Your task to perform on an android device: install app "Adobe Acrobat Reader: Edit PDF" Image 0: 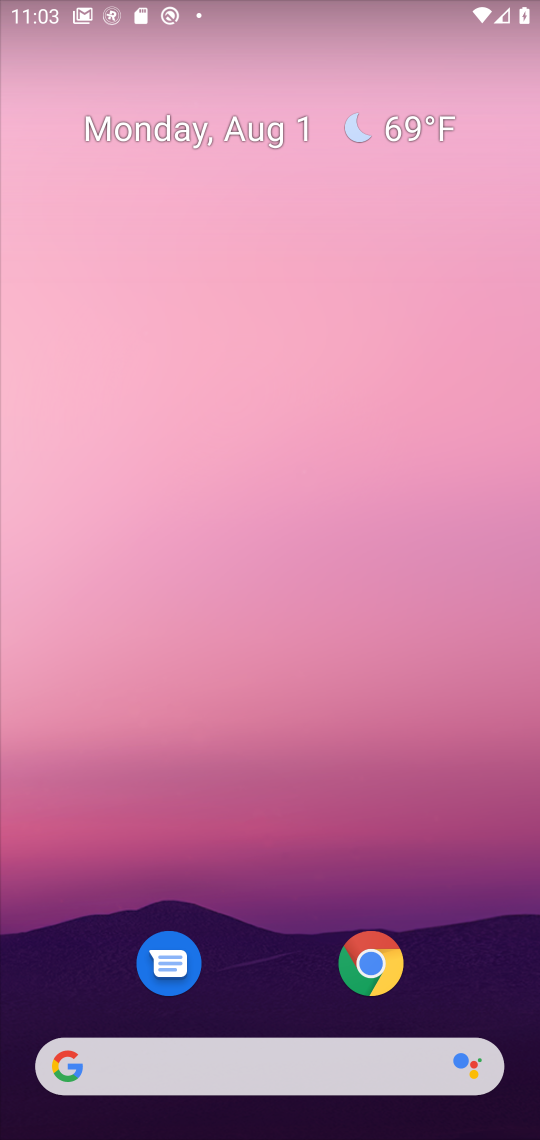
Step 0: drag from (274, 984) to (283, 374)
Your task to perform on an android device: install app "Adobe Acrobat Reader: Edit PDF" Image 1: 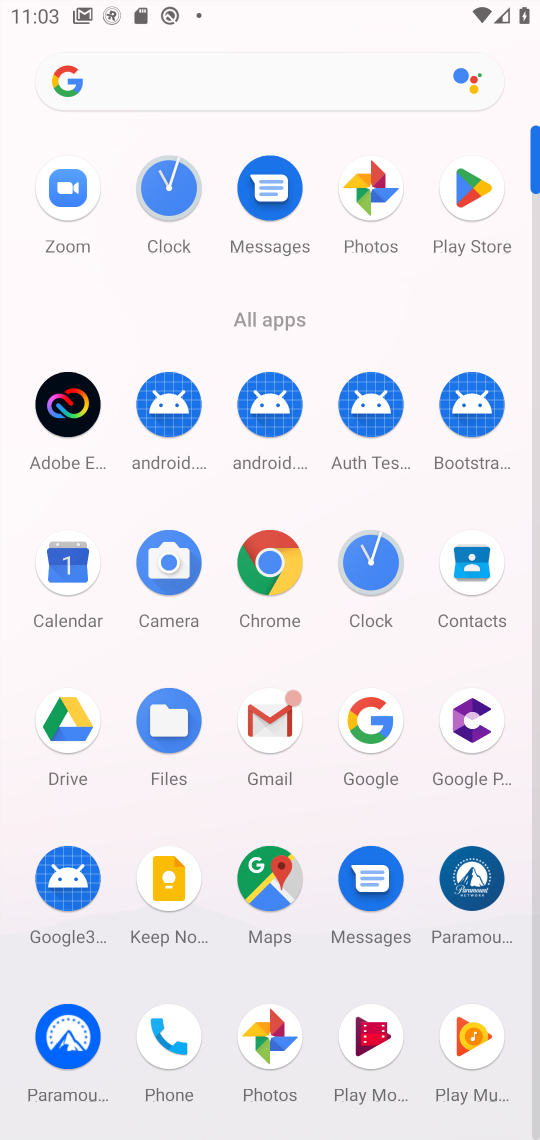
Step 1: click (485, 217)
Your task to perform on an android device: install app "Adobe Acrobat Reader: Edit PDF" Image 2: 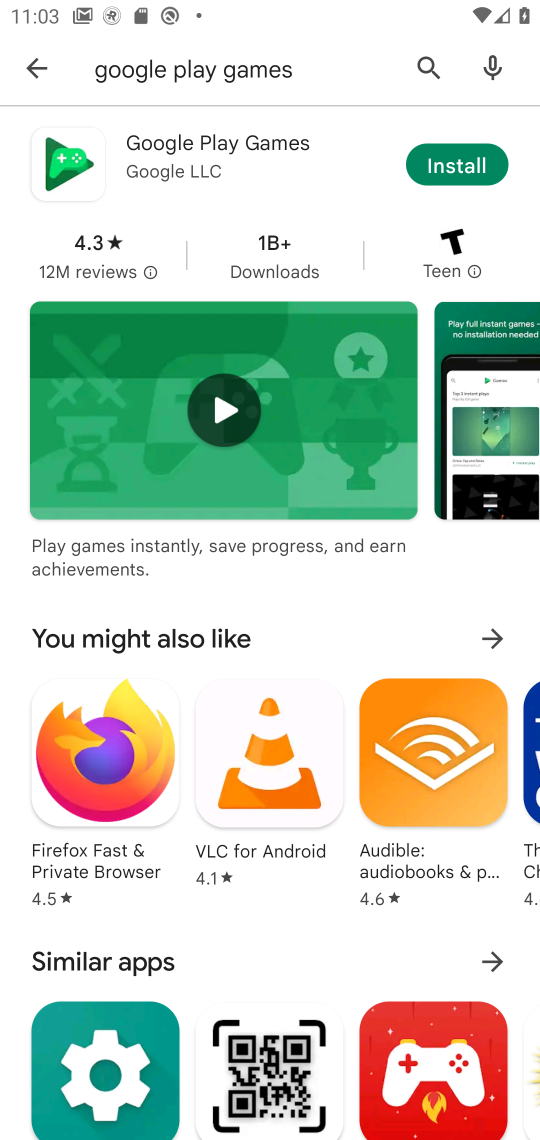
Step 2: click (233, 45)
Your task to perform on an android device: install app "Adobe Acrobat Reader: Edit PDF" Image 3: 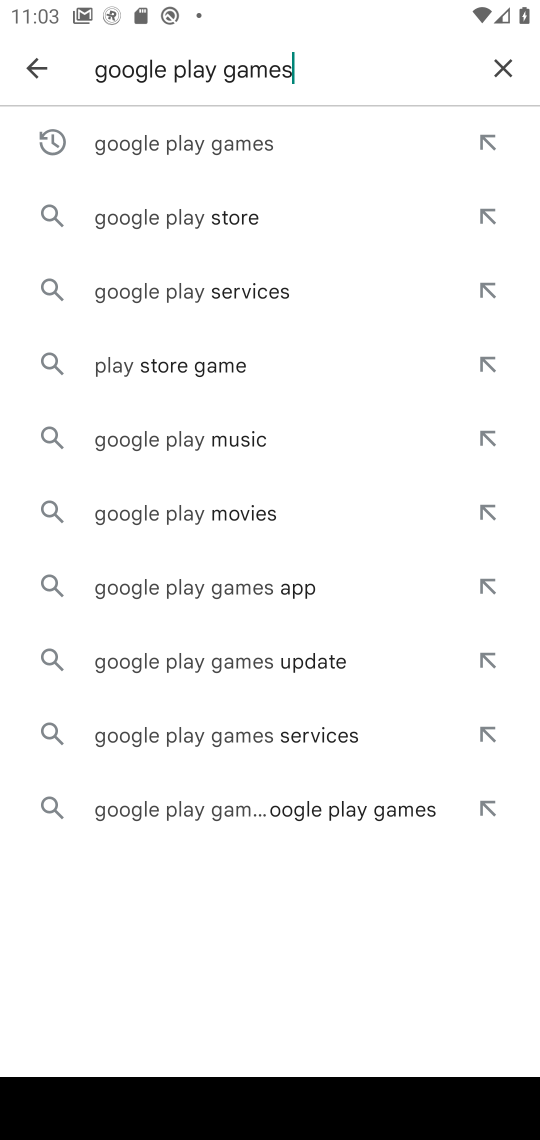
Step 3: click (505, 66)
Your task to perform on an android device: install app "Adobe Acrobat Reader: Edit PDF" Image 4: 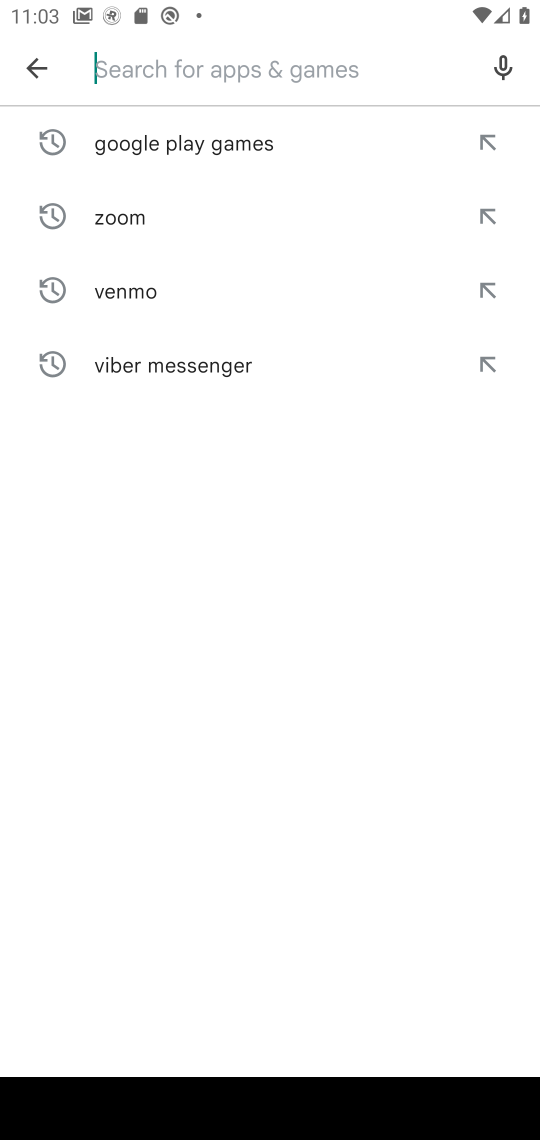
Step 4: type "Adobe Acrobat Reader"
Your task to perform on an android device: install app "Adobe Acrobat Reader: Edit PDF" Image 5: 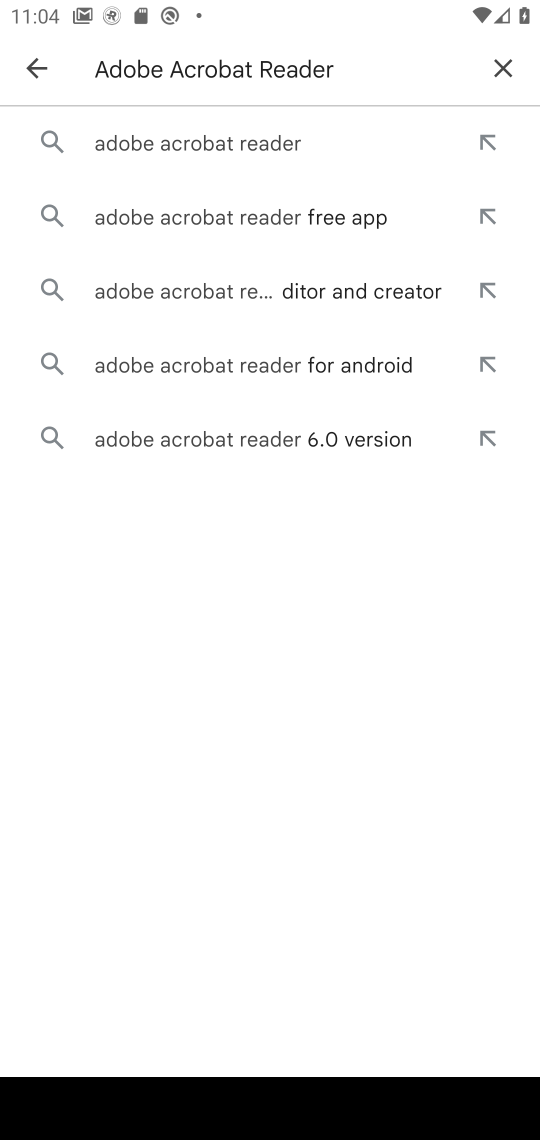
Step 5: click (158, 136)
Your task to perform on an android device: install app "Adobe Acrobat Reader: Edit PDF" Image 6: 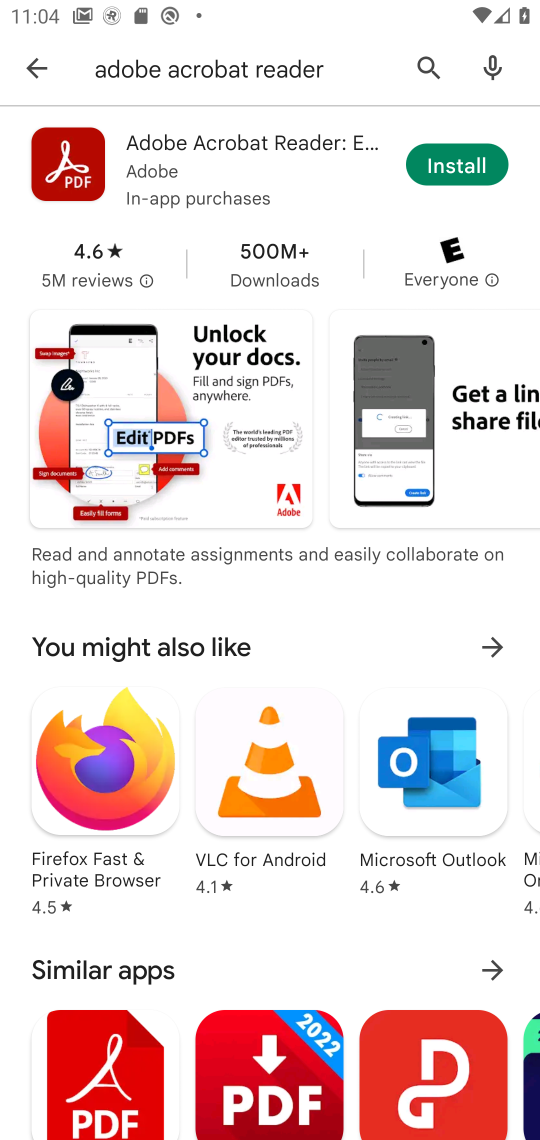
Step 6: click (453, 162)
Your task to perform on an android device: install app "Adobe Acrobat Reader: Edit PDF" Image 7: 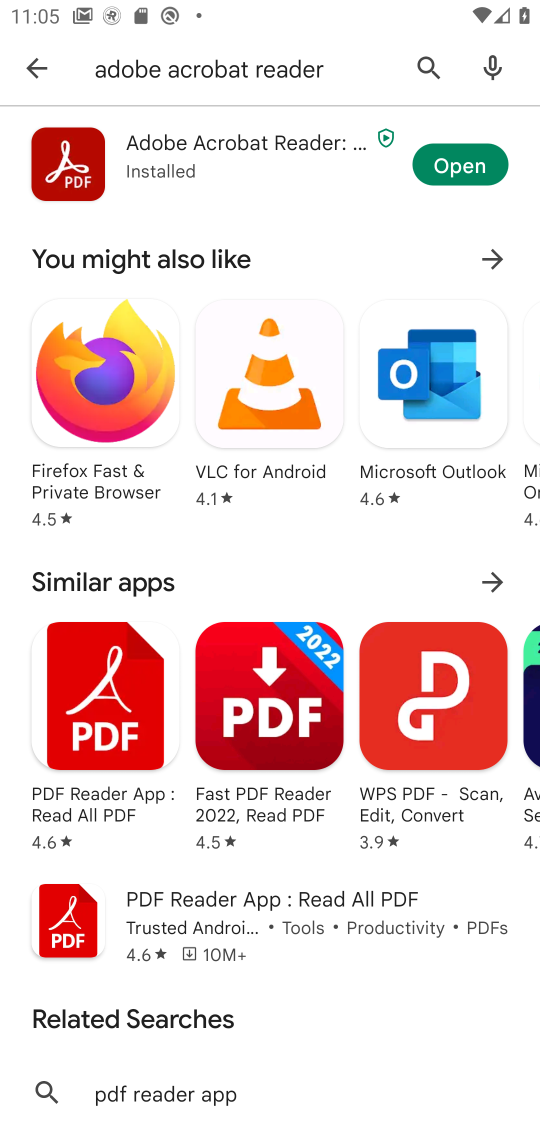
Step 7: task complete